Your task to perform on an android device: turn off sleep mode Image 0: 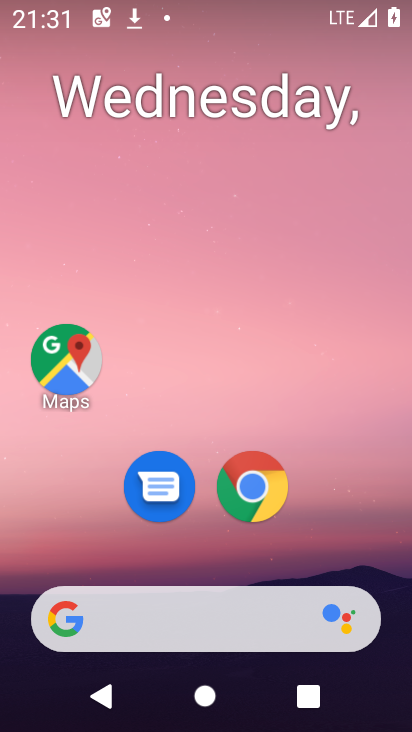
Step 0: drag from (213, 559) to (274, 4)
Your task to perform on an android device: turn off sleep mode Image 1: 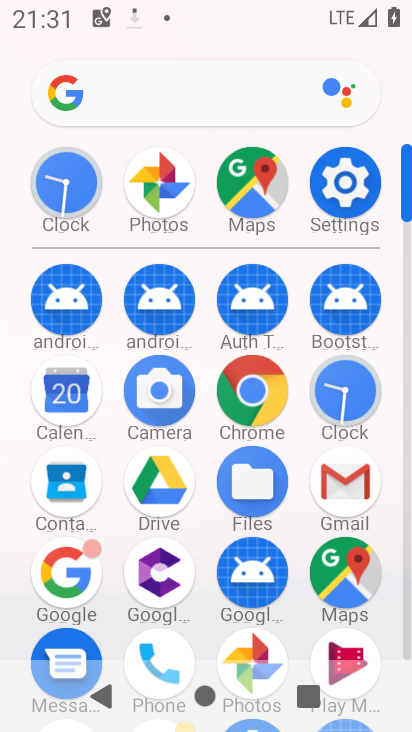
Step 1: click (340, 183)
Your task to perform on an android device: turn off sleep mode Image 2: 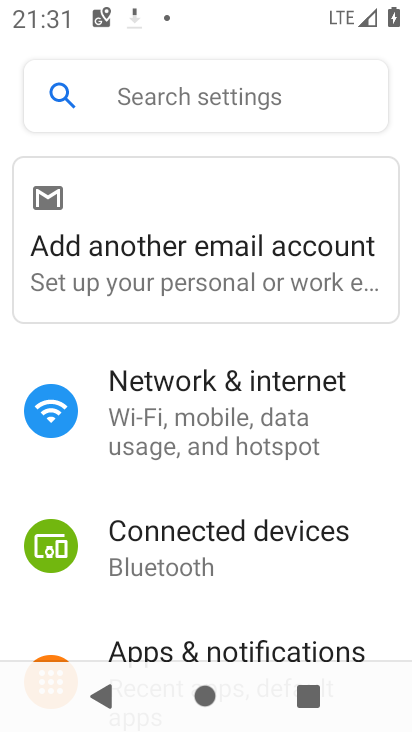
Step 2: click (166, 94)
Your task to perform on an android device: turn off sleep mode Image 3: 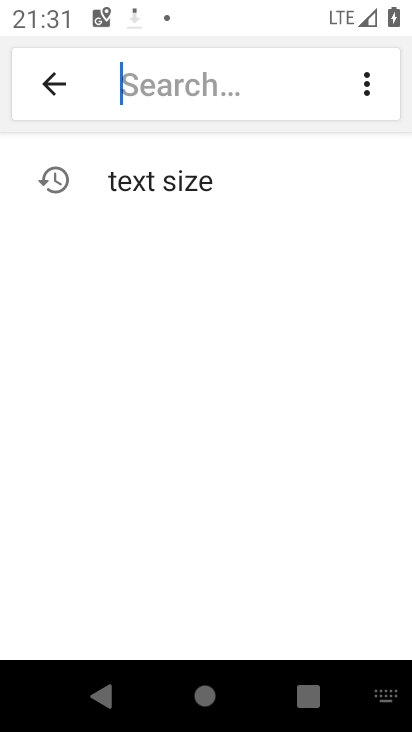
Step 3: type "sleep mode"
Your task to perform on an android device: turn off sleep mode Image 4: 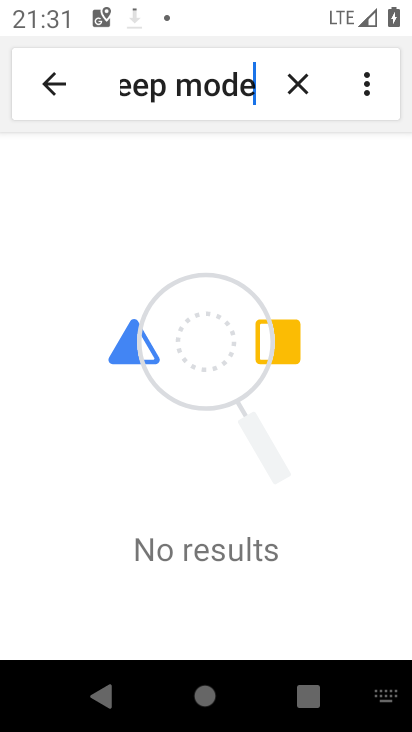
Step 4: task complete